Your task to perform on an android device: Open the calendar app, open the side menu, and click the "Day" option Image 0: 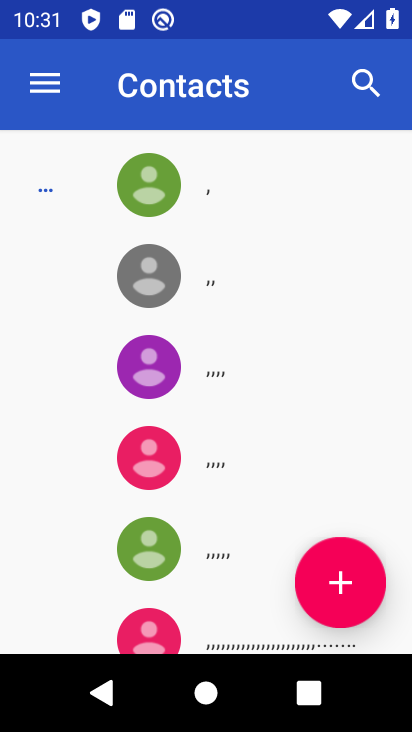
Step 0: press home button
Your task to perform on an android device: Open the calendar app, open the side menu, and click the "Day" option Image 1: 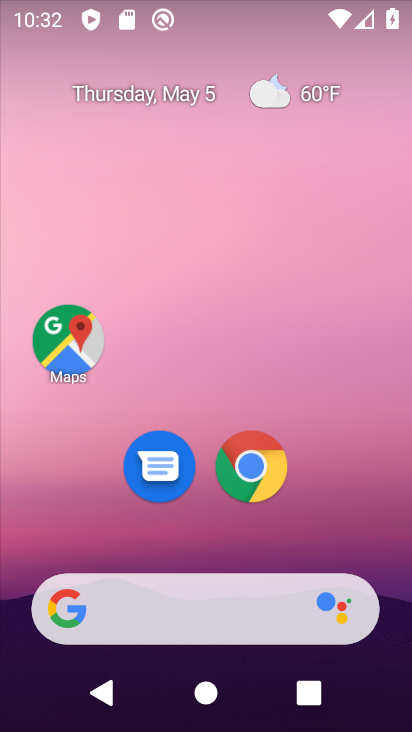
Step 1: drag from (157, 597) to (246, 283)
Your task to perform on an android device: Open the calendar app, open the side menu, and click the "Day" option Image 2: 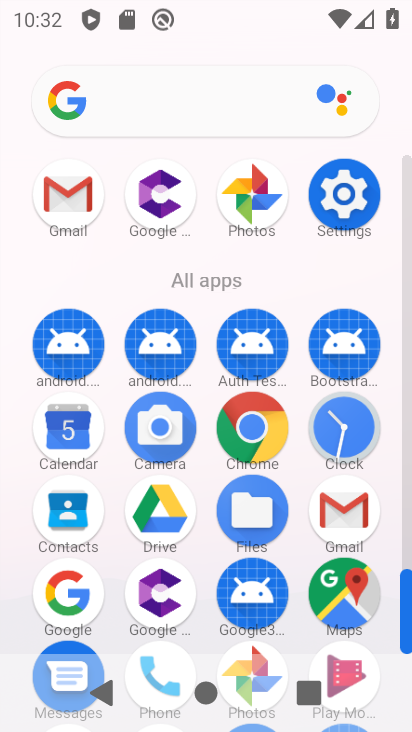
Step 2: click (72, 439)
Your task to perform on an android device: Open the calendar app, open the side menu, and click the "Day" option Image 3: 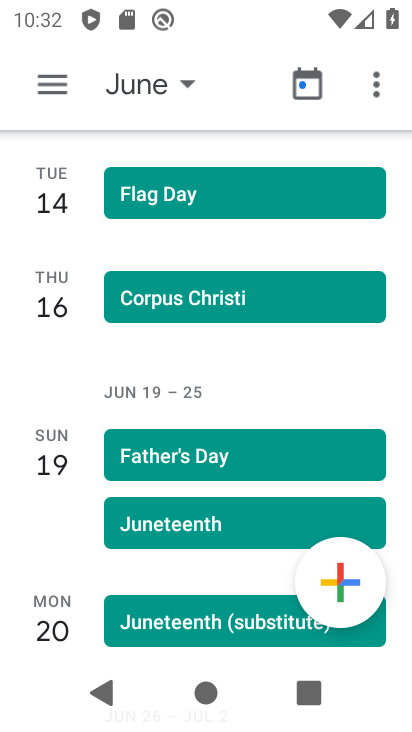
Step 3: click (51, 71)
Your task to perform on an android device: Open the calendar app, open the side menu, and click the "Day" option Image 4: 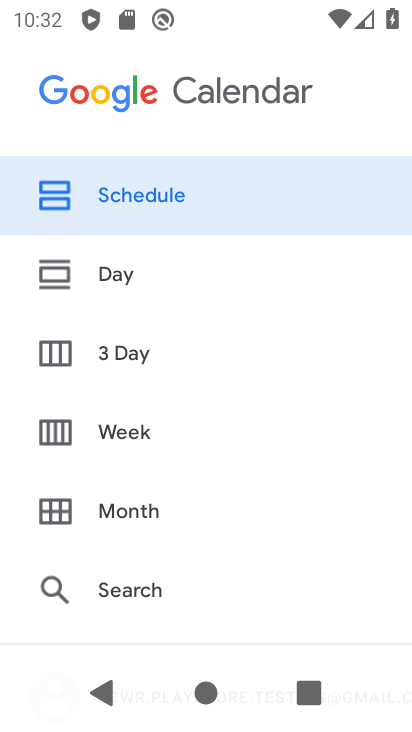
Step 4: click (100, 273)
Your task to perform on an android device: Open the calendar app, open the side menu, and click the "Day" option Image 5: 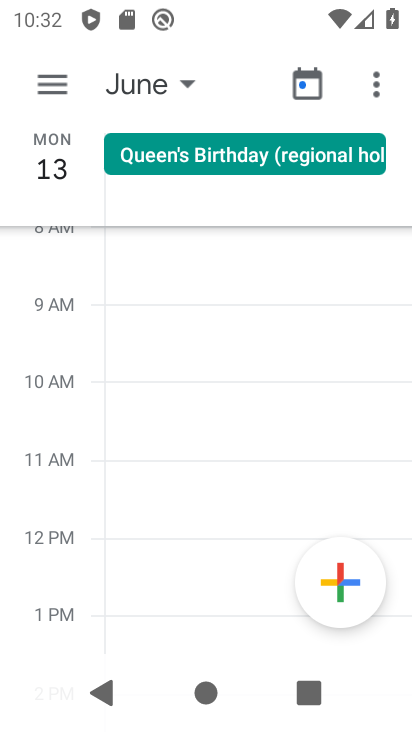
Step 5: click (141, 91)
Your task to perform on an android device: Open the calendar app, open the side menu, and click the "Day" option Image 6: 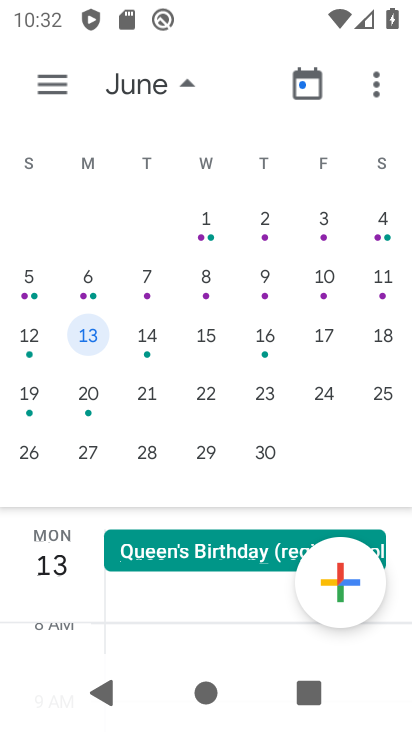
Step 6: task complete